Your task to perform on an android device: Open my contact list Image 0: 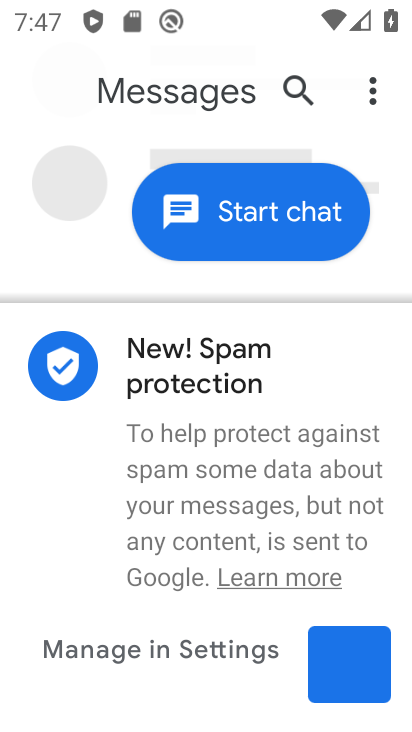
Step 0: press home button
Your task to perform on an android device: Open my contact list Image 1: 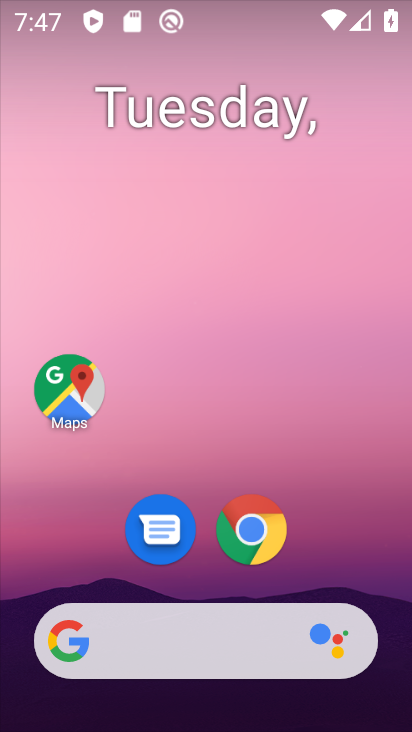
Step 1: click (272, 20)
Your task to perform on an android device: Open my contact list Image 2: 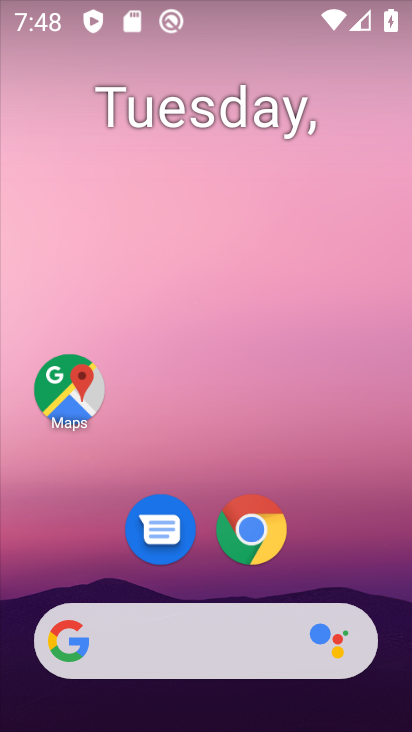
Step 2: drag from (192, 642) to (189, 76)
Your task to perform on an android device: Open my contact list Image 3: 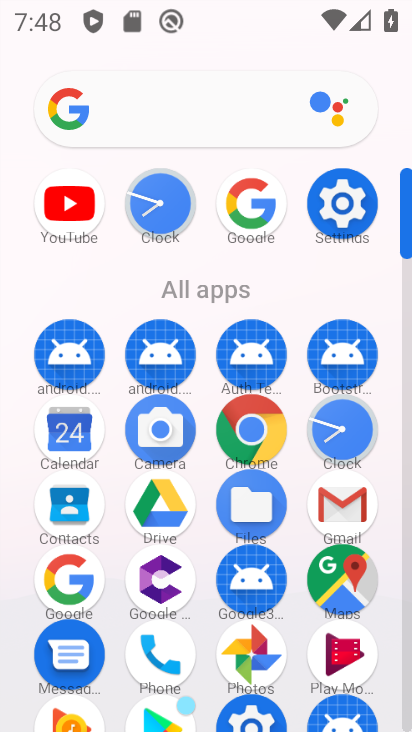
Step 3: click (72, 523)
Your task to perform on an android device: Open my contact list Image 4: 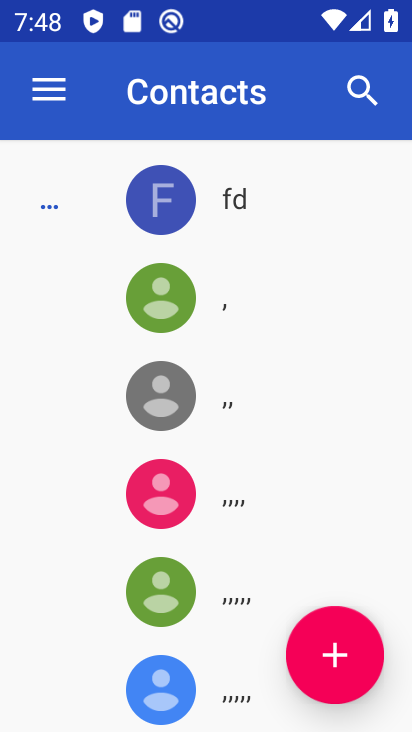
Step 4: task complete